Your task to perform on an android device: open the mobile data screen to see how much data has been used Image 0: 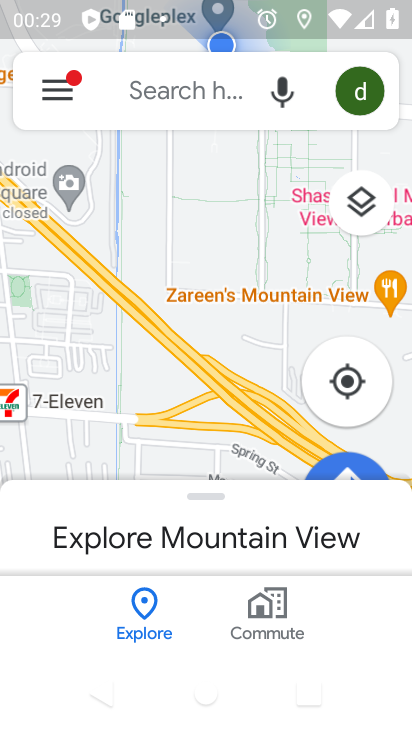
Step 0: press home button
Your task to perform on an android device: open the mobile data screen to see how much data has been used Image 1: 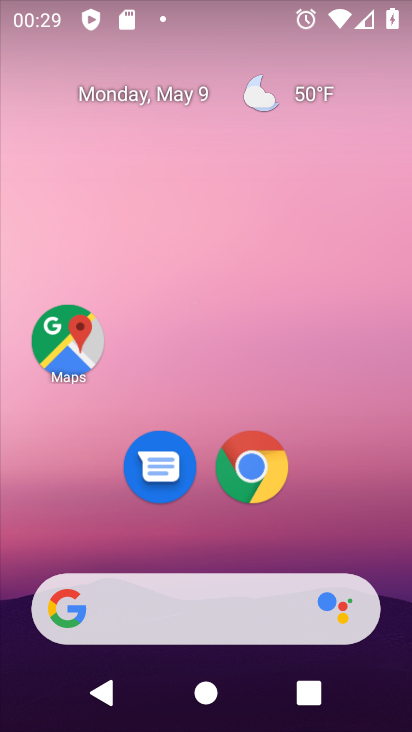
Step 1: drag from (218, 541) to (248, 107)
Your task to perform on an android device: open the mobile data screen to see how much data has been used Image 2: 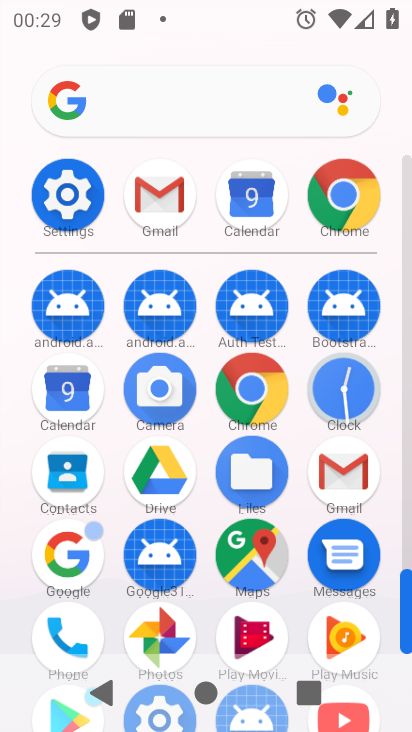
Step 2: click (76, 193)
Your task to perform on an android device: open the mobile data screen to see how much data has been used Image 3: 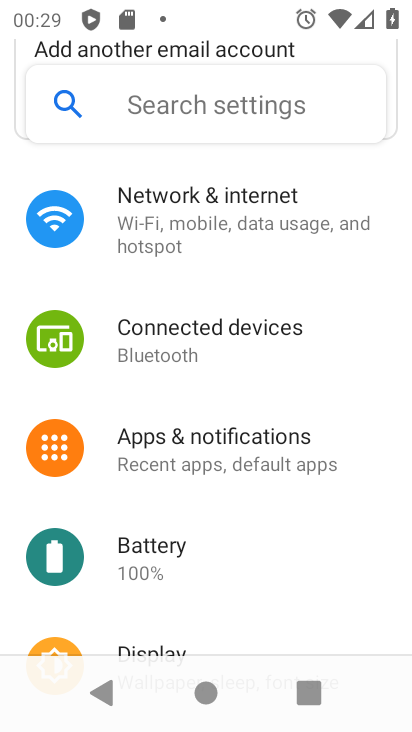
Step 3: drag from (184, 207) to (198, 336)
Your task to perform on an android device: open the mobile data screen to see how much data has been used Image 4: 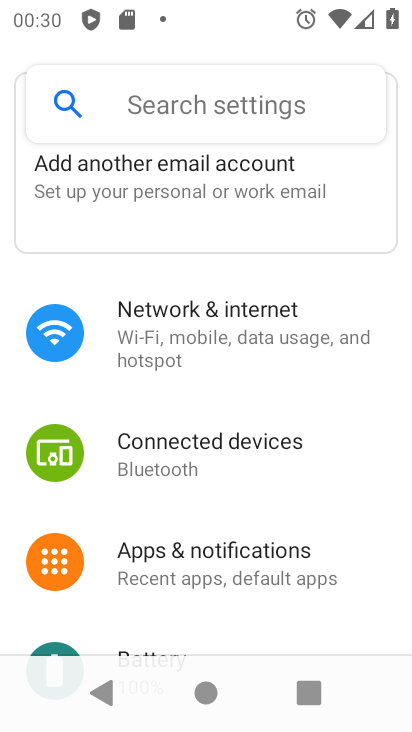
Step 4: click (220, 342)
Your task to perform on an android device: open the mobile data screen to see how much data has been used Image 5: 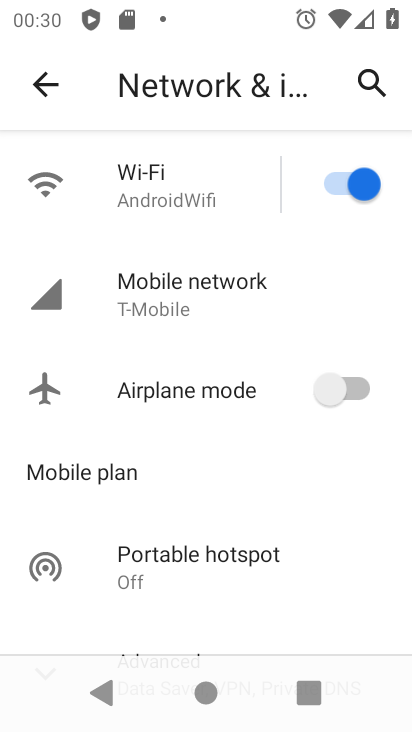
Step 5: click (147, 294)
Your task to perform on an android device: open the mobile data screen to see how much data has been used Image 6: 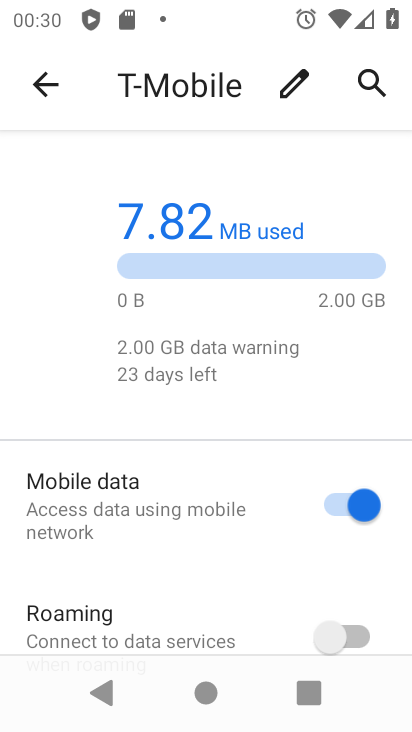
Step 6: drag from (181, 566) to (232, 209)
Your task to perform on an android device: open the mobile data screen to see how much data has been used Image 7: 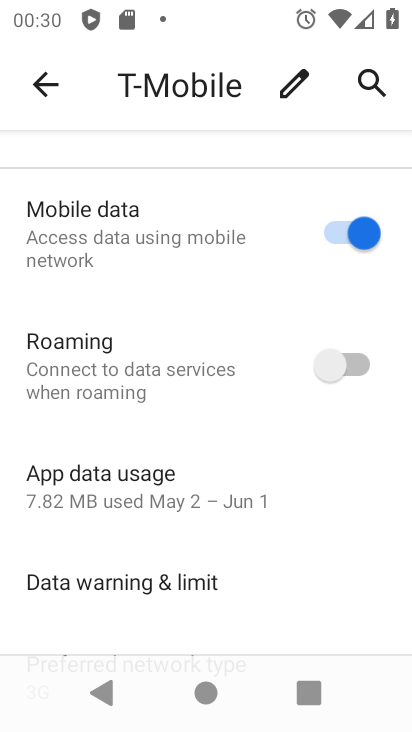
Step 7: click (201, 469)
Your task to perform on an android device: open the mobile data screen to see how much data has been used Image 8: 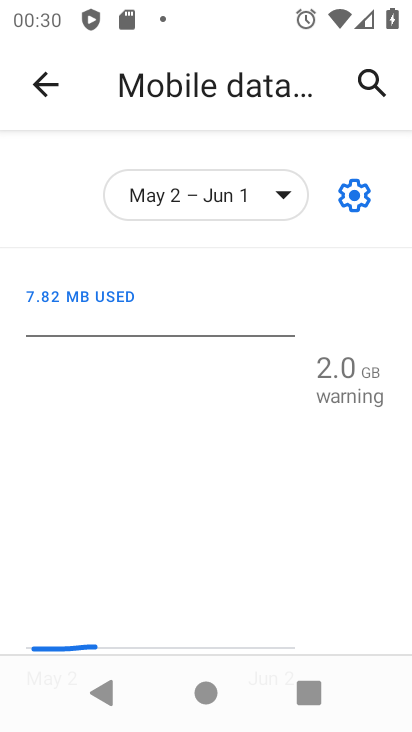
Step 8: task complete